Your task to perform on an android device: clear all cookies in the chrome app Image 0: 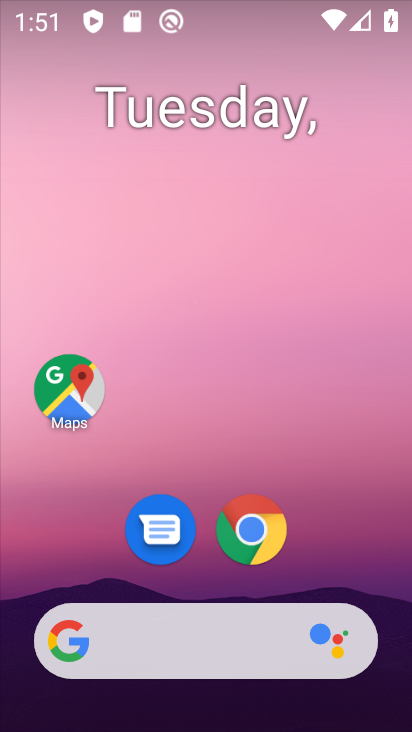
Step 0: click (262, 537)
Your task to perform on an android device: clear all cookies in the chrome app Image 1: 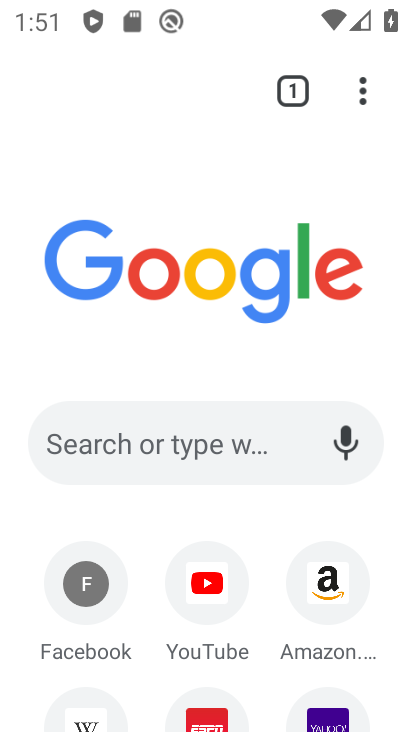
Step 1: click (369, 105)
Your task to perform on an android device: clear all cookies in the chrome app Image 2: 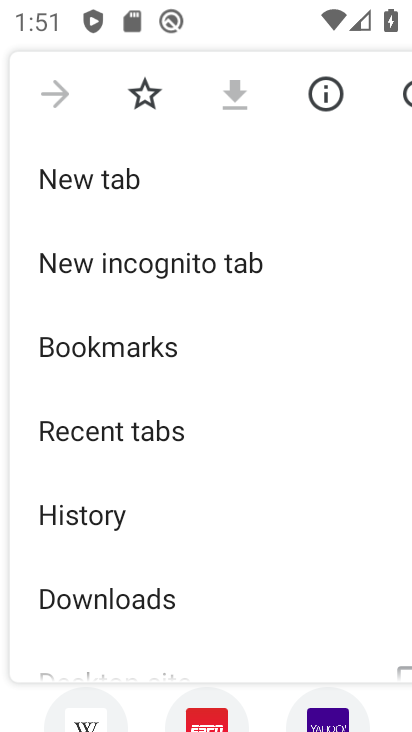
Step 2: drag from (228, 612) to (188, 280)
Your task to perform on an android device: clear all cookies in the chrome app Image 3: 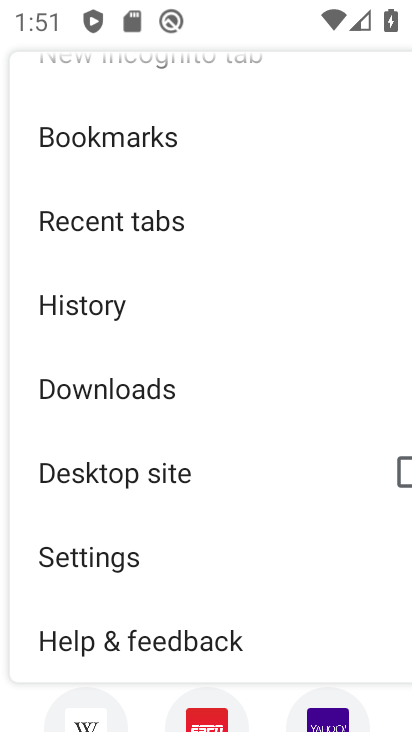
Step 3: click (98, 311)
Your task to perform on an android device: clear all cookies in the chrome app Image 4: 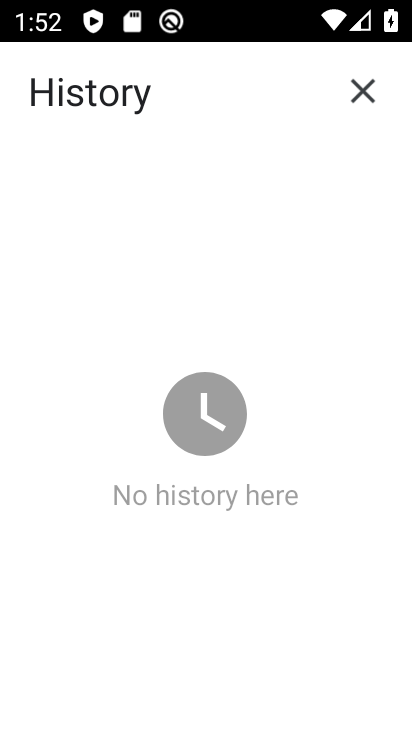
Step 4: task complete